Your task to perform on an android device: Go to Yahoo.com Image 0: 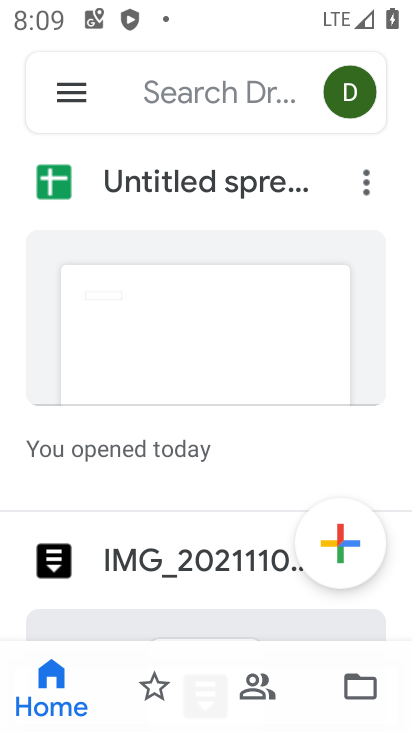
Step 0: press home button
Your task to perform on an android device: Go to Yahoo.com Image 1: 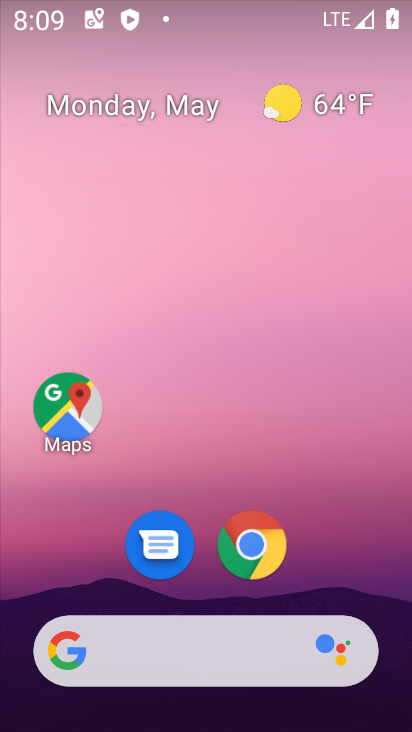
Step 1: click (230, 545)
Your task to perform on an android device: Go to Yahoo.com Image 2: 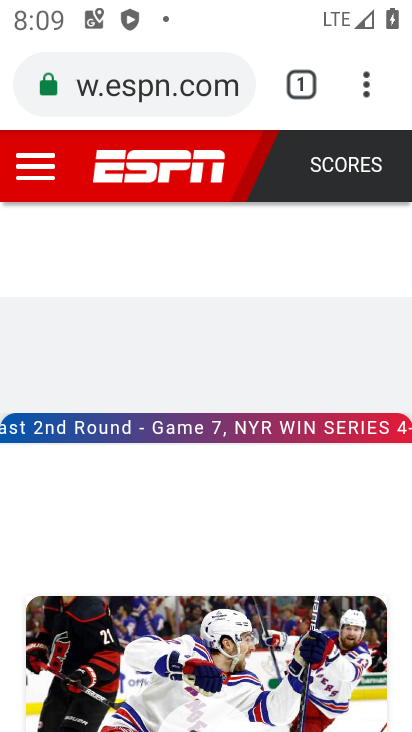
Step 2: click (110, 87)
Your task to perform on an android device: Go to Yahoo.com Image 3: 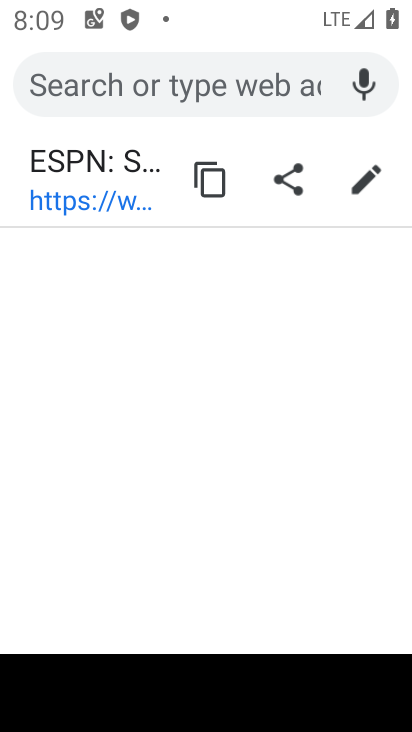
Step 3: type "yahoo.com"
Your task to perform on an android device: Go to Yahoo.com Image 4: 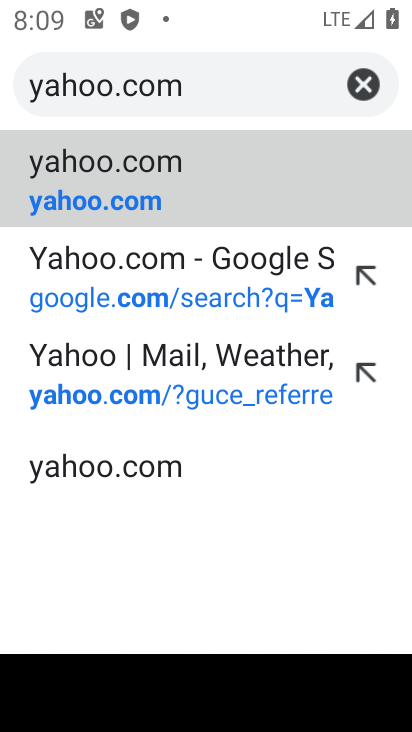
Step 4: click (159, 187)
Your task to perform on an android device: Go to Yahoo.com Image 5: 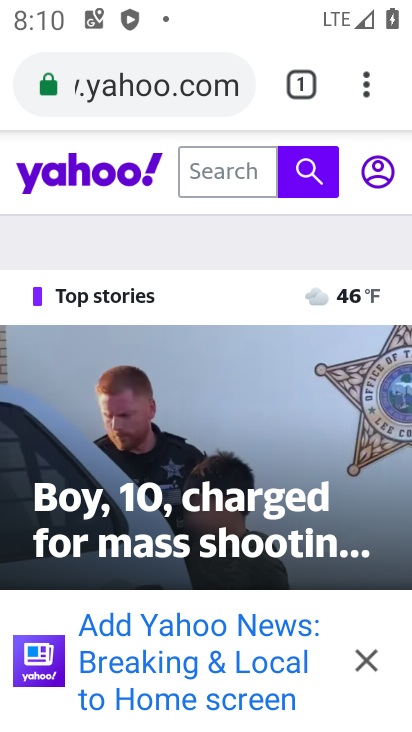
Step 5: task complete